Your task to perform on an android device: clear all cookies in the chrome app Image 0: 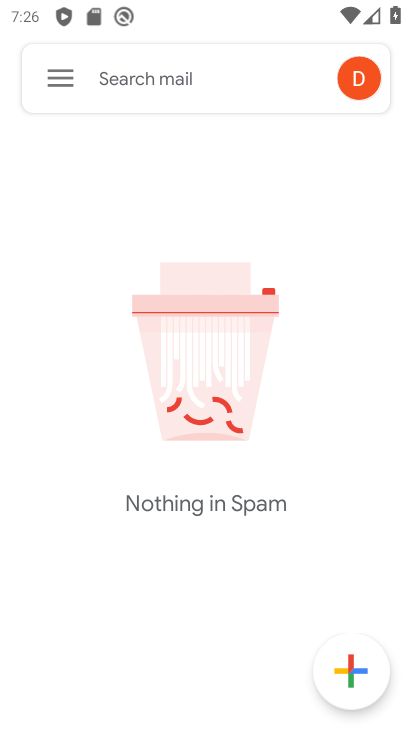
Step 0: press home button
Your task to perform on an android device: clear all cookies in the chrome app Image 1: 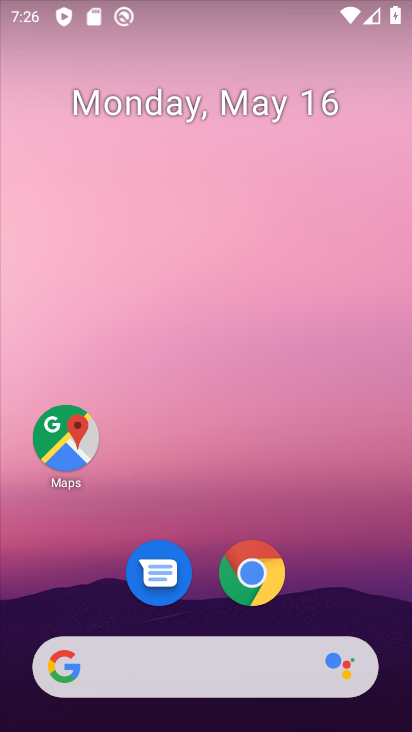
Step 1: click (246, 564)
Your task to perform on an android device: clear all cookies in the chrome app Image 2: 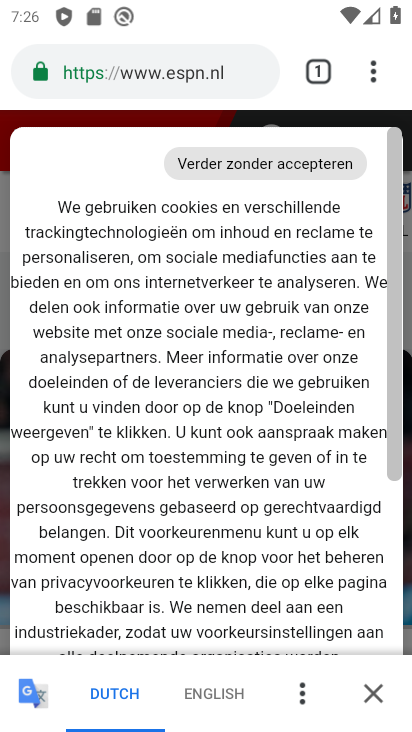
Step 2: drag from (377, 88) to (109, 418)
Your task to perform on an android device: clear all cookies in the chrome app Image 3: 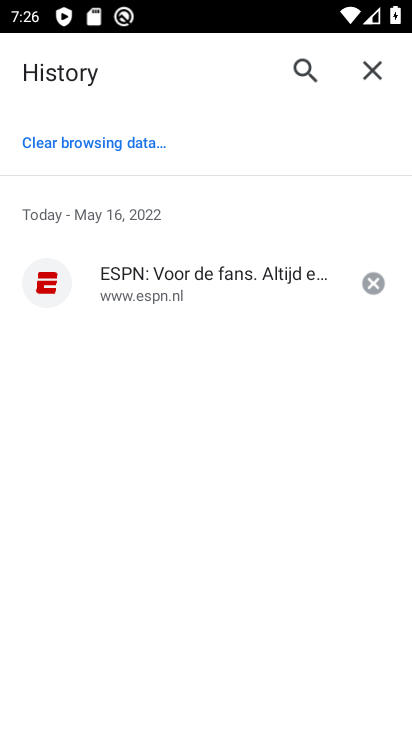
Step 3: click (96, 139)
Your task to perform on an android device: clear all cookies in the chrome app Image 4: 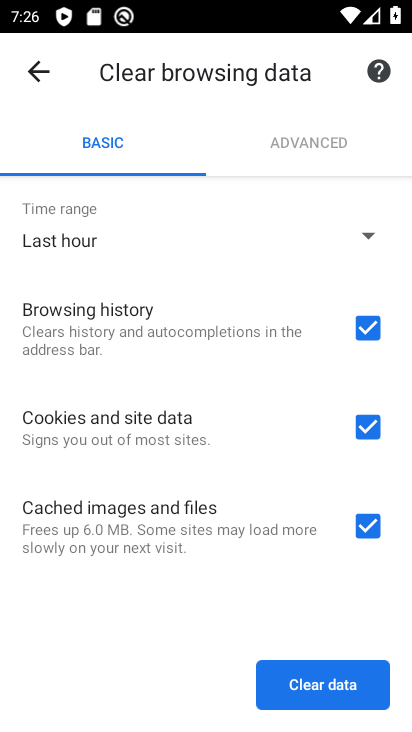
Step 4: click (374, 328)
Your task to perform on an android device: clear all cookies in the chrome app Image 5: 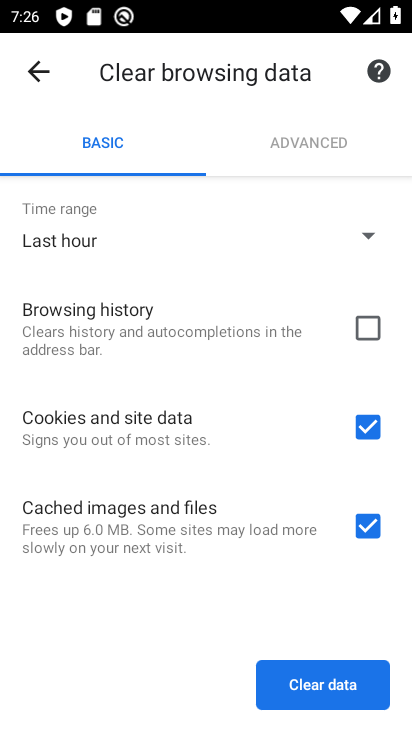
Step 5: click (384, 530)
Your task to perform on an android device: clear all cookies in the chrome app Image 6: 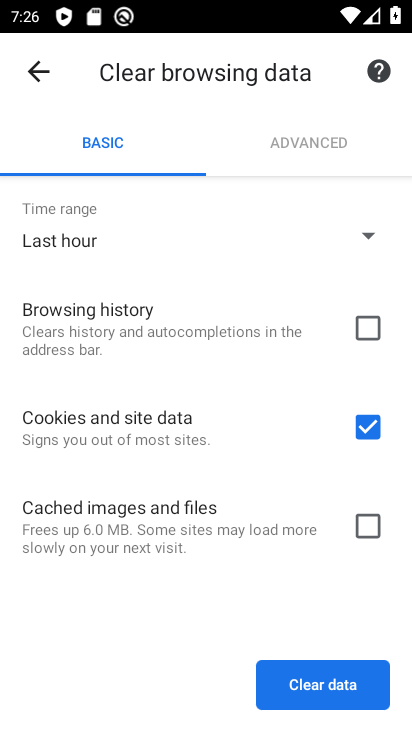
Step 6: click (325, 675)
Your task to perform on an android device: clear all cookies in the chrome app Image 7: 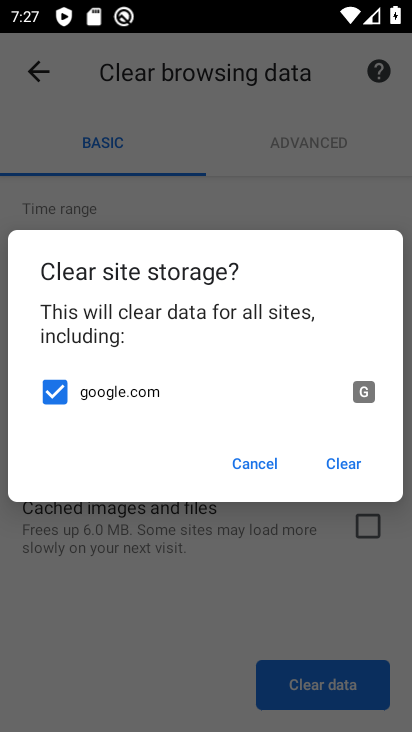
Step 7: click (348, 467)
Your task to perform on an android device: clear all cookies in the chrome app Image 8: 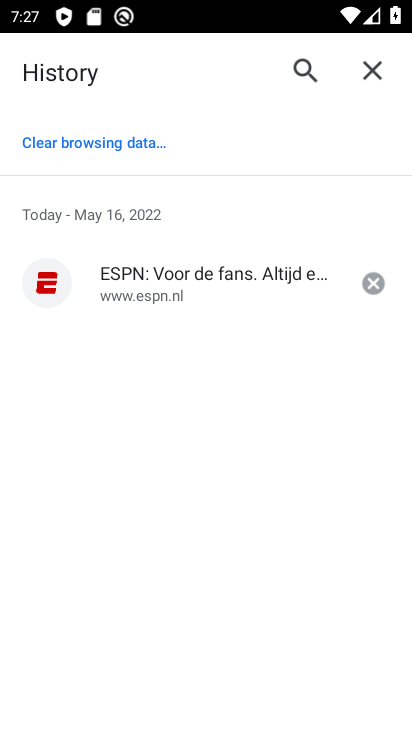
Step 8: task complete